Your task to perform on an android device: Go to wifi settings Image 0: 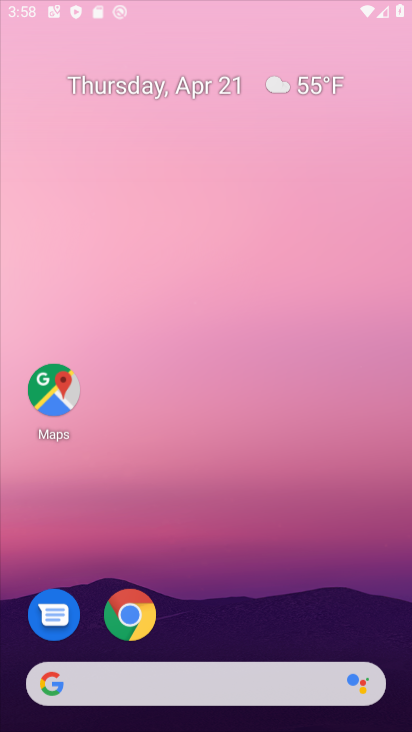
Step 0: click (141, 1)
Your task to perform on an android device: Go to wifi settings Image 1: 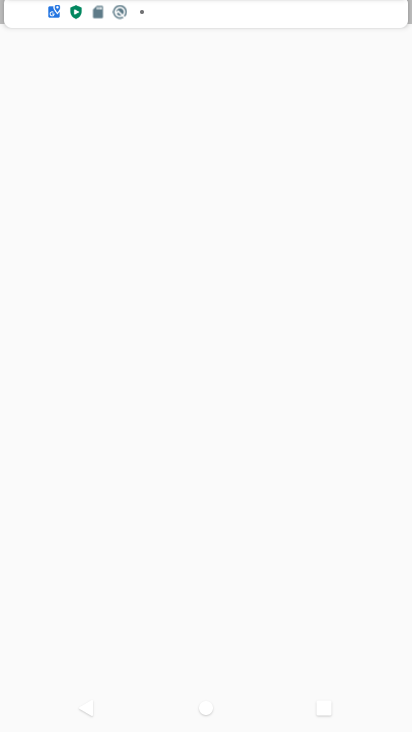
Step 1: drag from (272, 559) to (235, 12)
Your task to perform on an android device: Go to wifi settings Image 2: 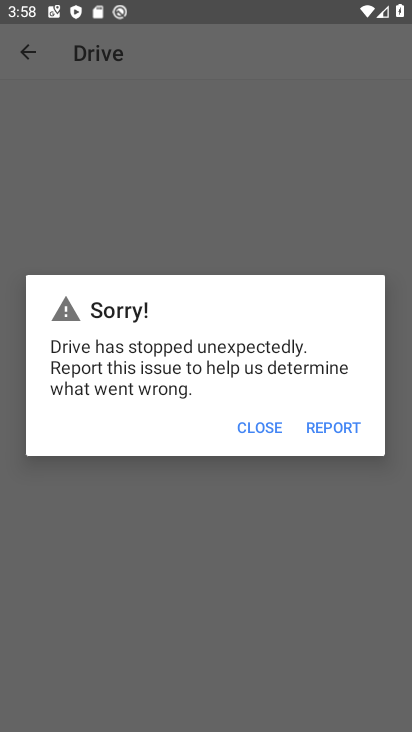
Step 2: press back button
Your task to perform on an android device: Go to wifi settings Image 3: 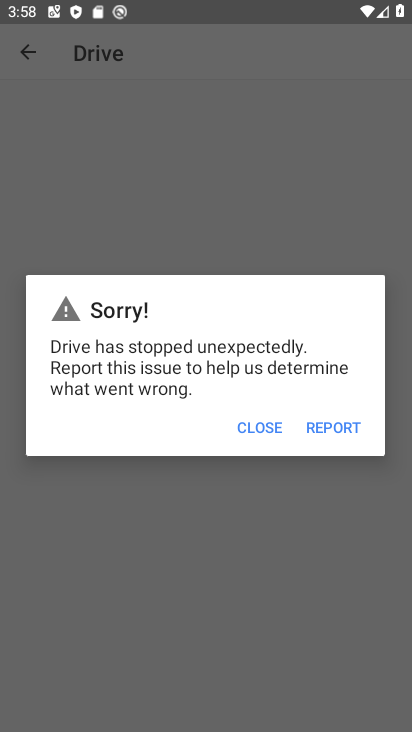
Step 3: press home button
Your task to perform on an android device: Go to wifi settings Image 4: 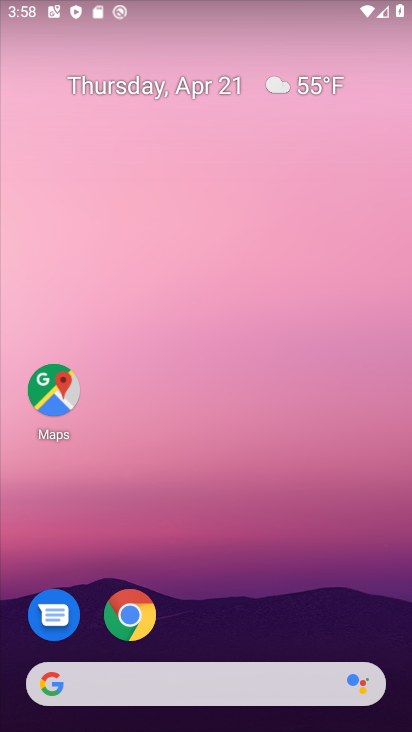
Step 4: drag from (243, 428) to (196, 61)
Your task to perform on an android device: Go to wifi settings Image 5: 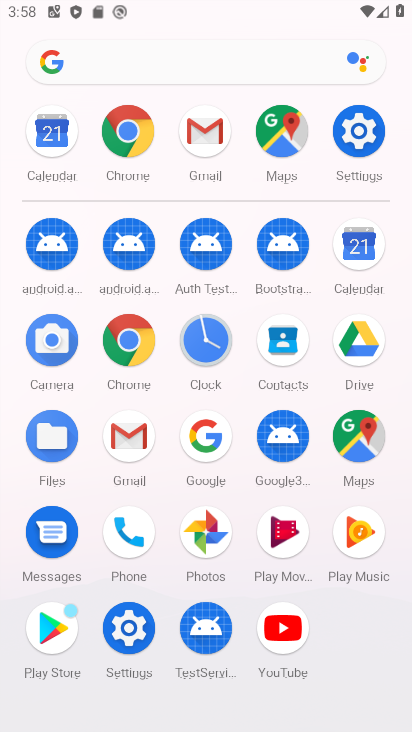
Step 5: click (134, 629)
Your task to perform on an android device: Go to wifi settings Image 6: 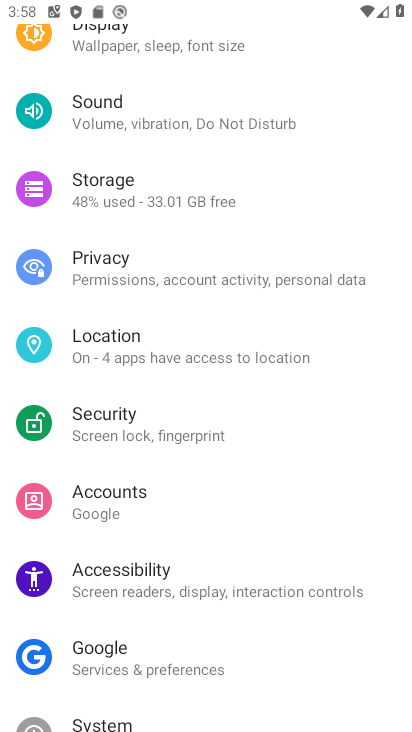
Step 6: drag from (234, 184) to (212, 625)
Your task to perform on an android device: Go to wifi settings Image 7: 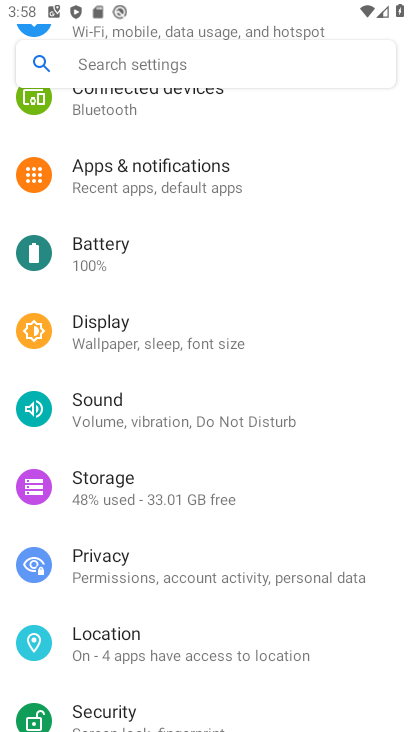
Step 7: drag from (223, 360) to (220, 671)
Your task to perform on an android device: Go to wifi settings Image 8: 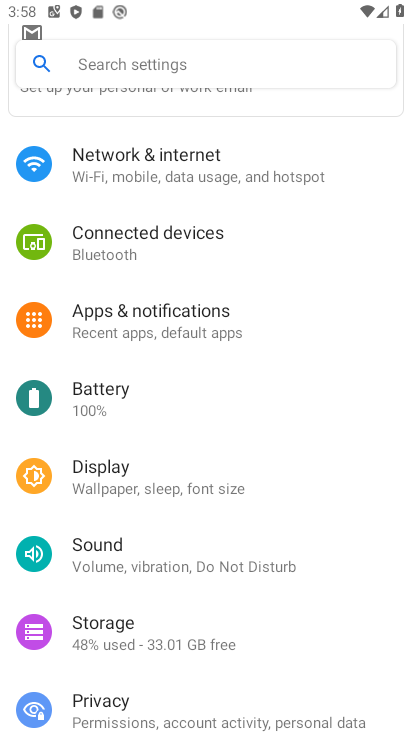
Step 8: click (196, 170)
Your task to perform on an android device: Go to wifi settings Image 9: 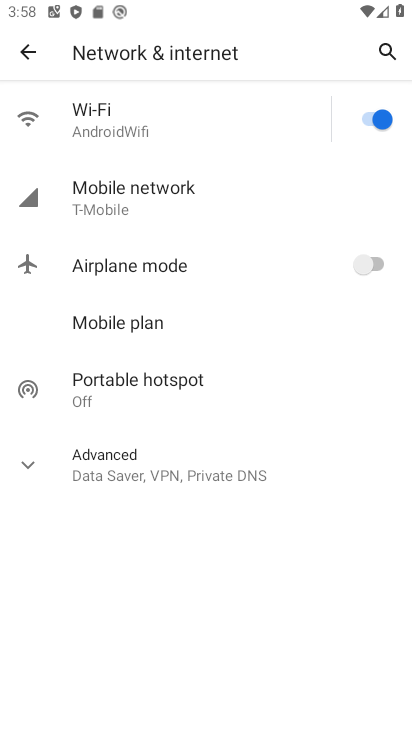
Step 9: click (160, 129)
Your task to perform on an android device: Go to wifi settings Image 10: 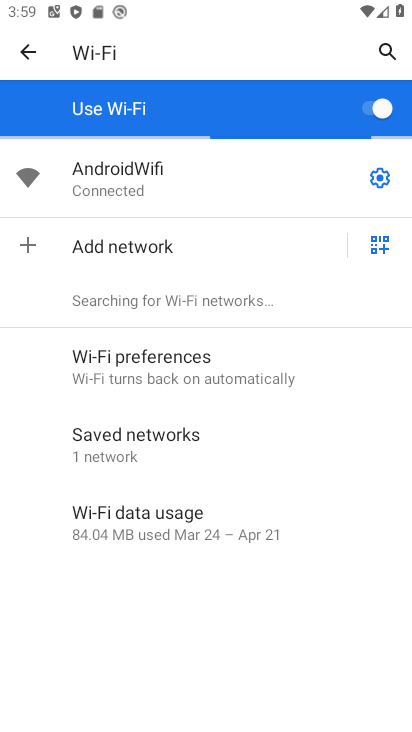
Step 10: task complete